Your task to perform on an android device: Show me recent news Image 0: 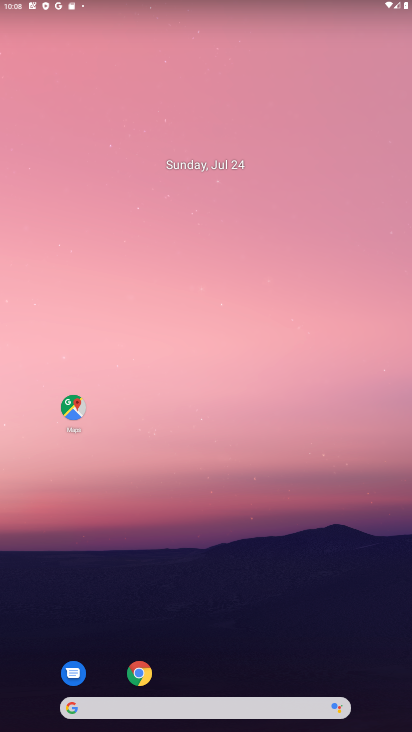
Step 0: click (125, 708)
Your task to perform on an android device: Show me recent news Image 1: 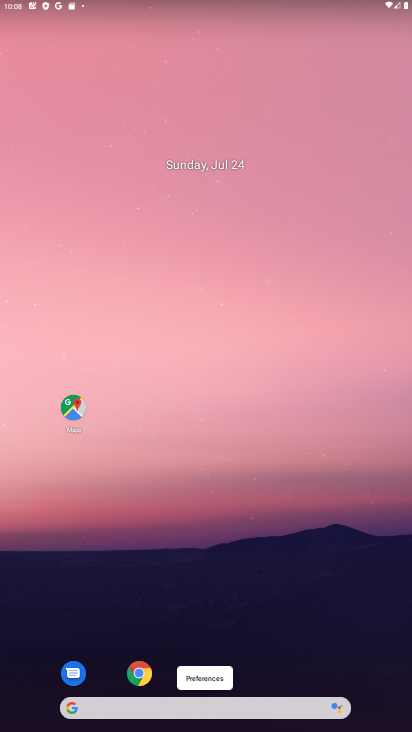
Step 1: click (93, 706)
Your task to perform on an android device: Show me recent news Image 2: 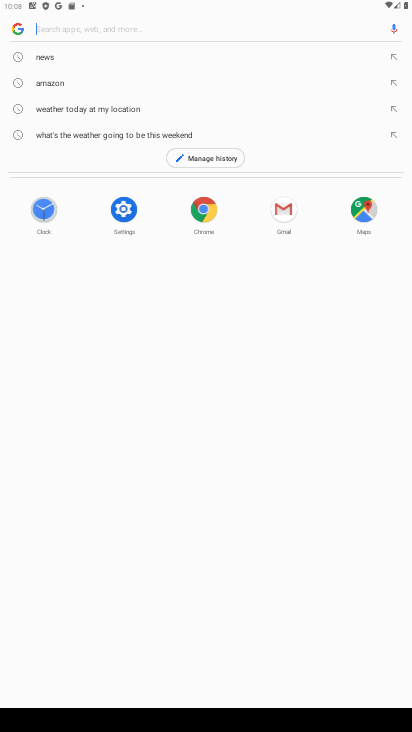
Step 2: type " recent news"
Your task to perform on an android device: Show me recent news Image 3: 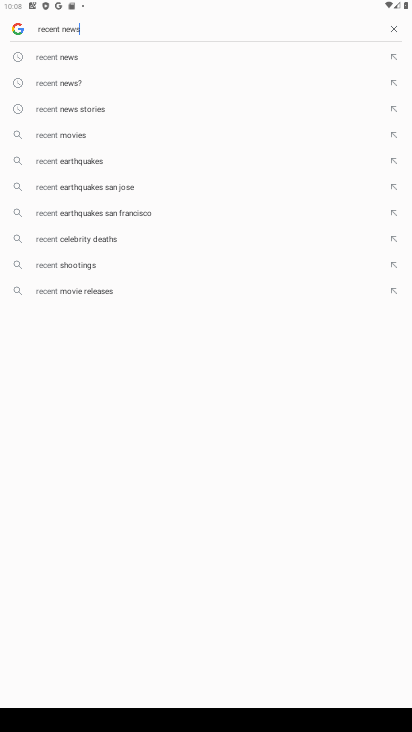
Step 3: type ""
Your task to perform on an android device: Show me recent news Image 4: 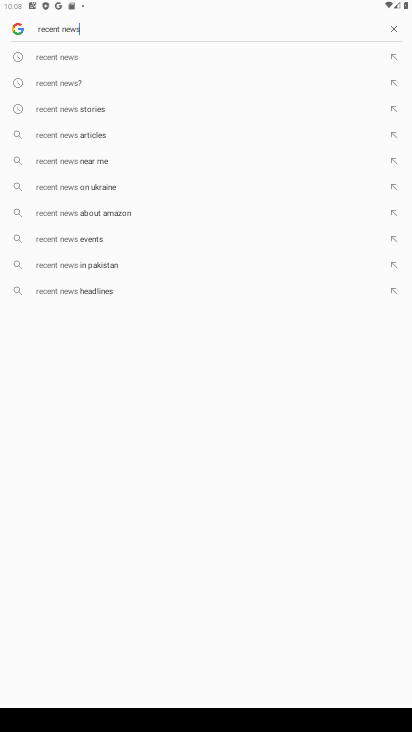
Step 4: click (45, 56)
Your task to perform on an android device: Show me recent news Image 5: 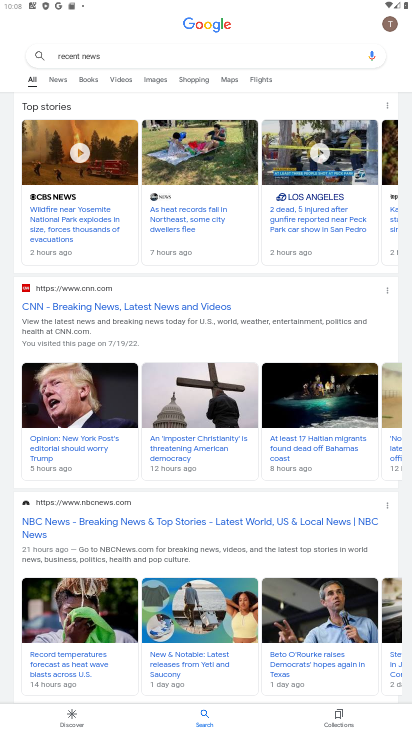
Step 5: task complete